Your task to perform on an android device: change the clock display to show seconds Image 0: 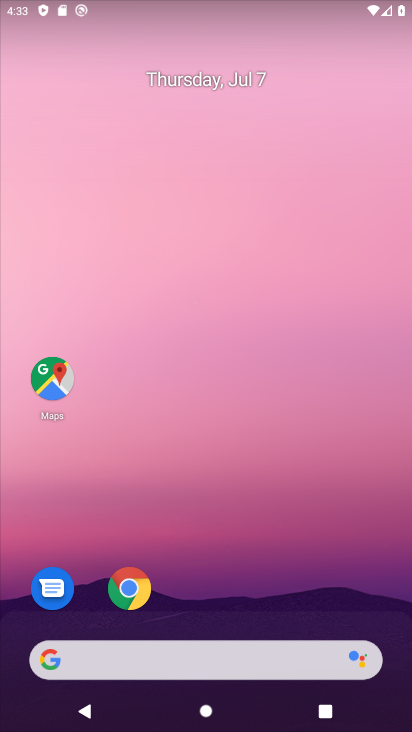
Step 0: drag from (254, 623) to (361, 113)
Your task to perform on an android device: change the clock display to show seconds Image 1: 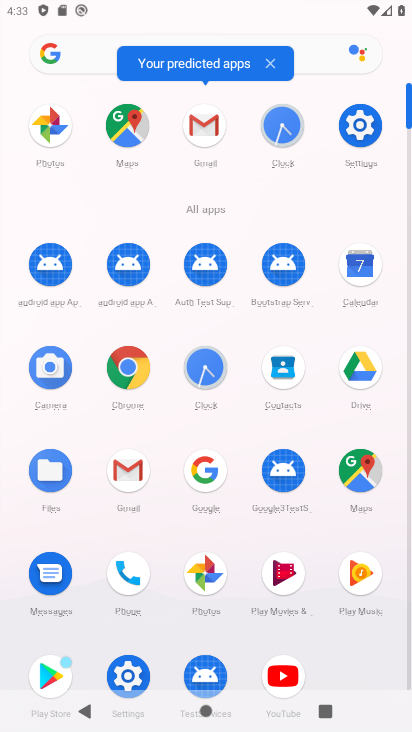
Step 1: click (208, 385)
Your task to perform on an android device: change the clock display to show seconds Image 2: 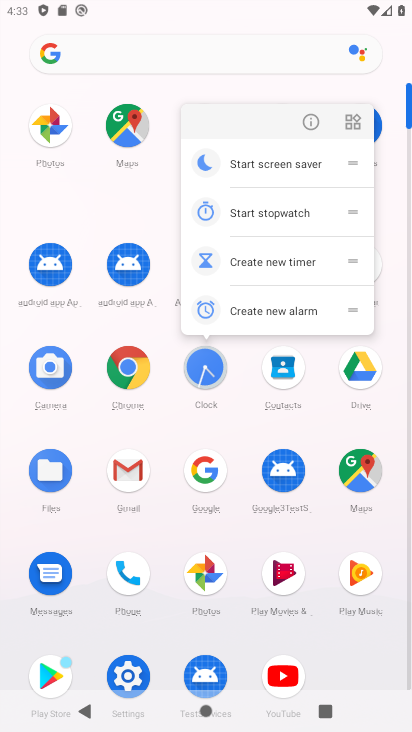
Step 2: click (223, 371)
Your task to perform on an android device: change the clock display to show seconds Image 3: 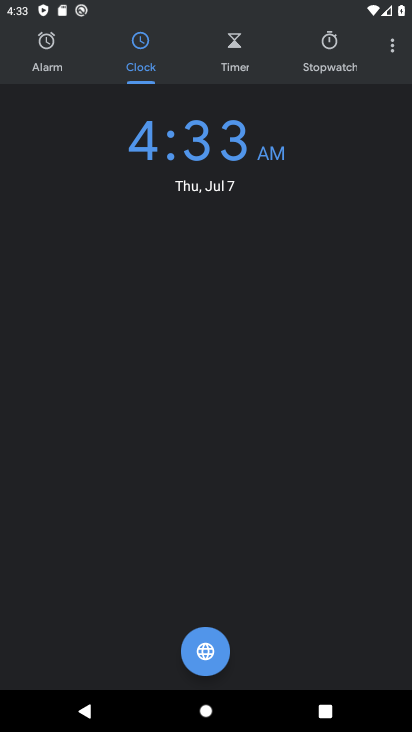
Step 3: click (380, 49)
Your task to perform on an android device: change the clock display to show seconds Image 4: 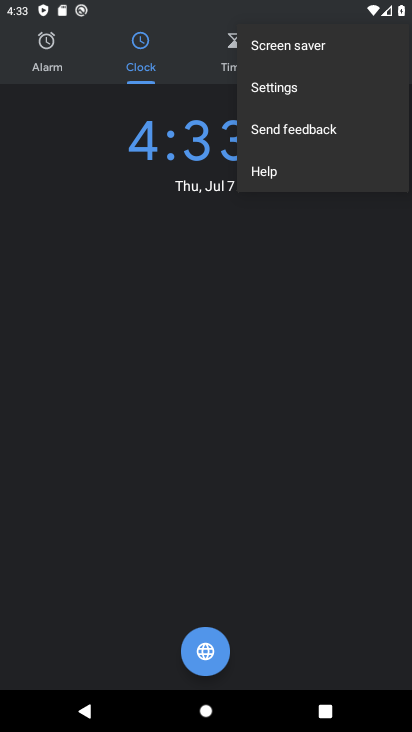
Step 4: click (332, 95)
Your task to perform on an android device: change the clock display to show seconds Image 5: 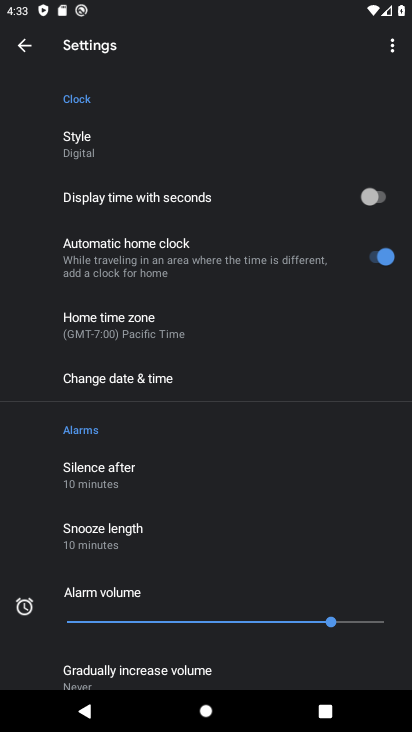
Step 5: click (385, 189)
Your task to perform on an android device: change the clock display to show seconds Image 6: 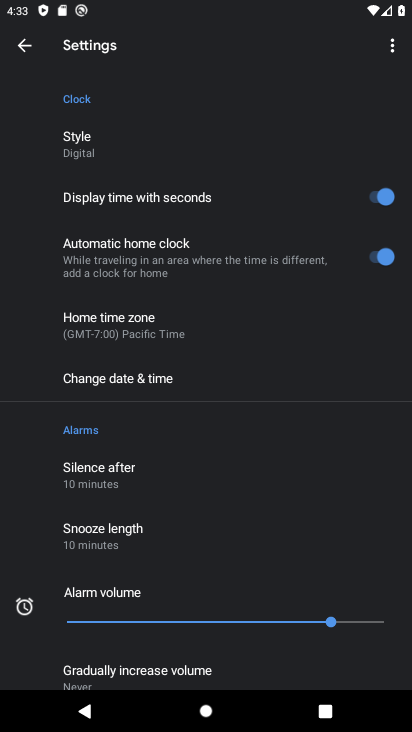
Step 6: task complete